Your task to perform on an android device: change notifications settings Image 0: 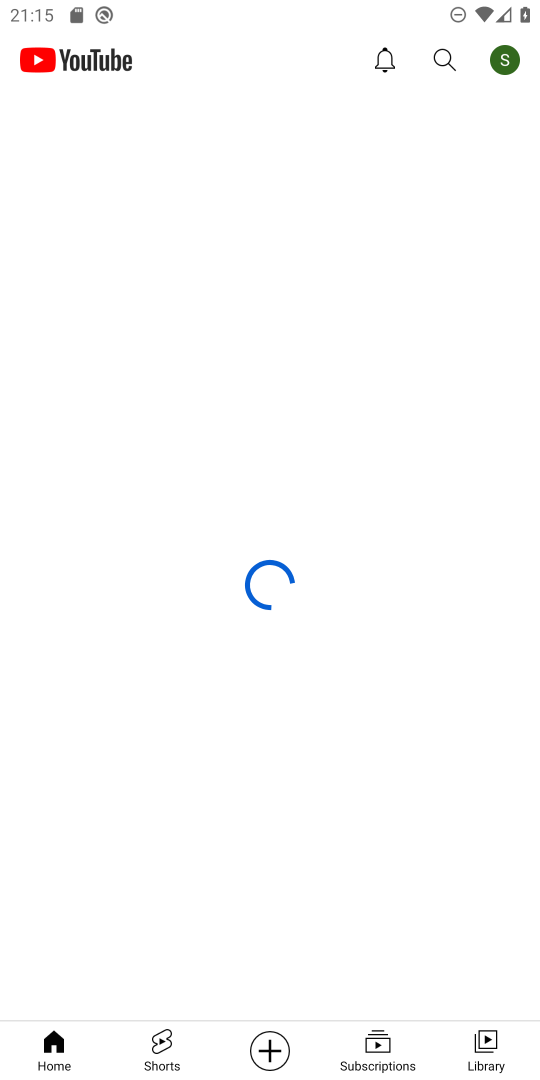
Step 0: press home button
Your task to perform on an android device: change notifications settings Image 1: 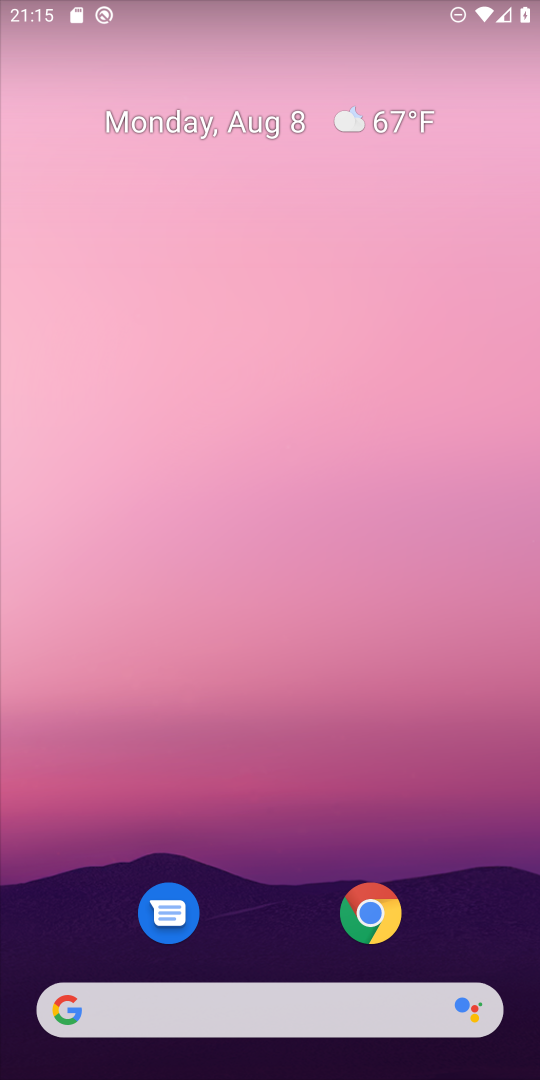
Step 1: drag from (271, 978) to (333, 199)
Your task to perform on an android device: change notifications settings Image 2: 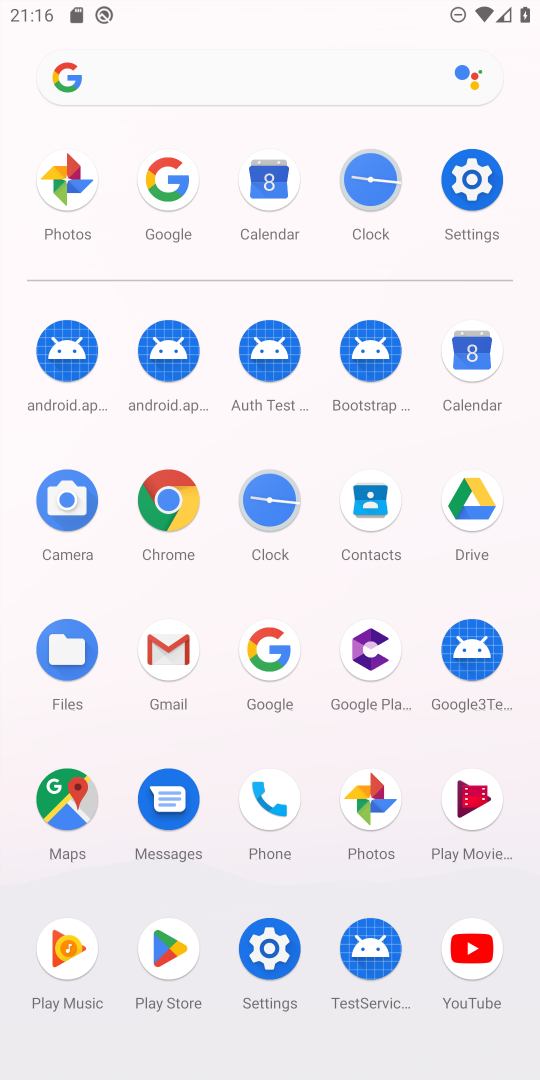
Step 2: click (473, 182)
Your task to perform on an android device: change notifications settings Image 3: 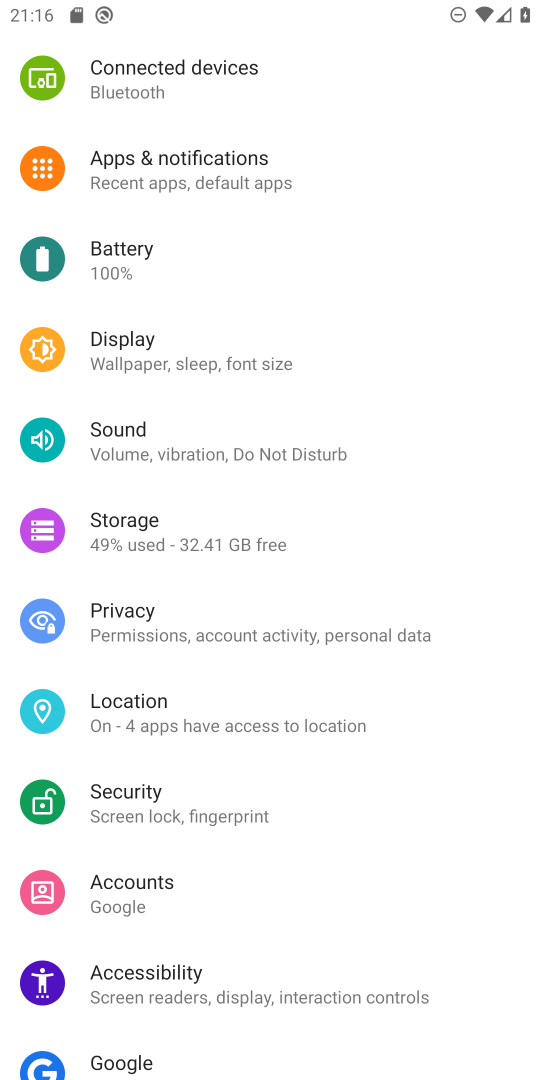
Step 3: click (199, 184)
Your task to perform on an android device: change notifications settings Image 4: 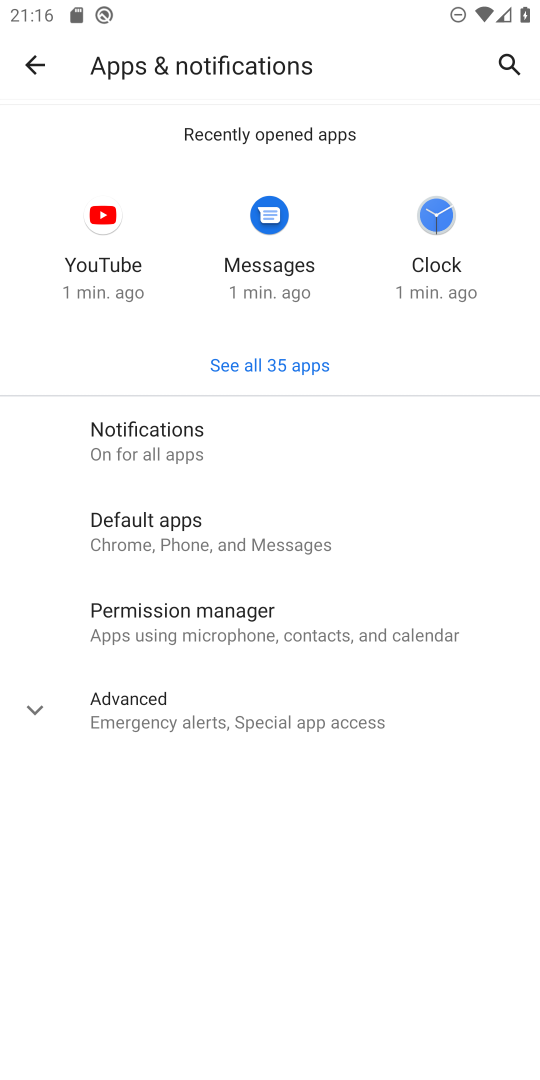
Step 4: click (193, 445)
Your task to perform on an android device: change notifications settings Image 5: 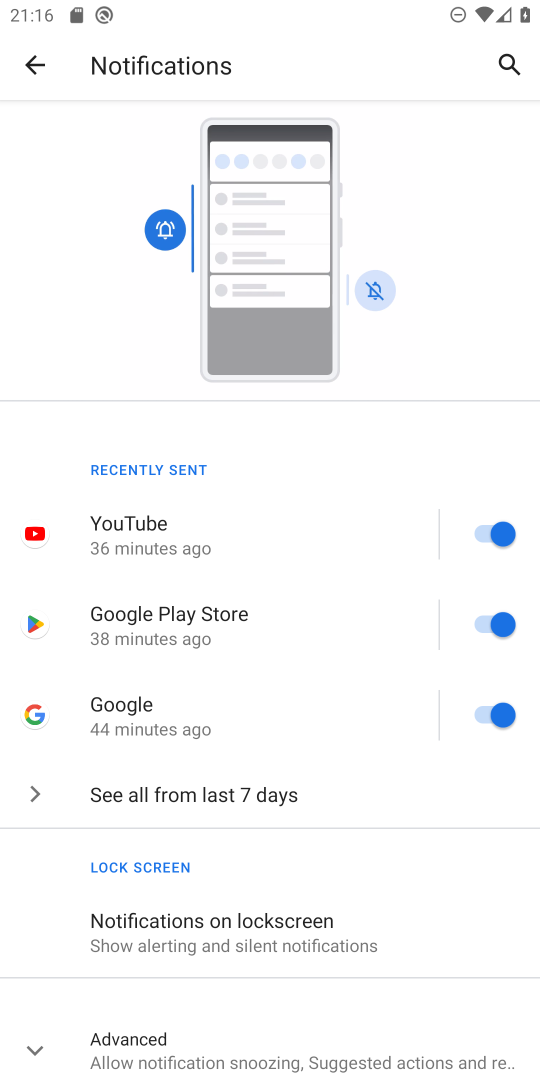
Step 5: click (143, 1041)
Your task to perform on an android device: change notifications settings Image 6: 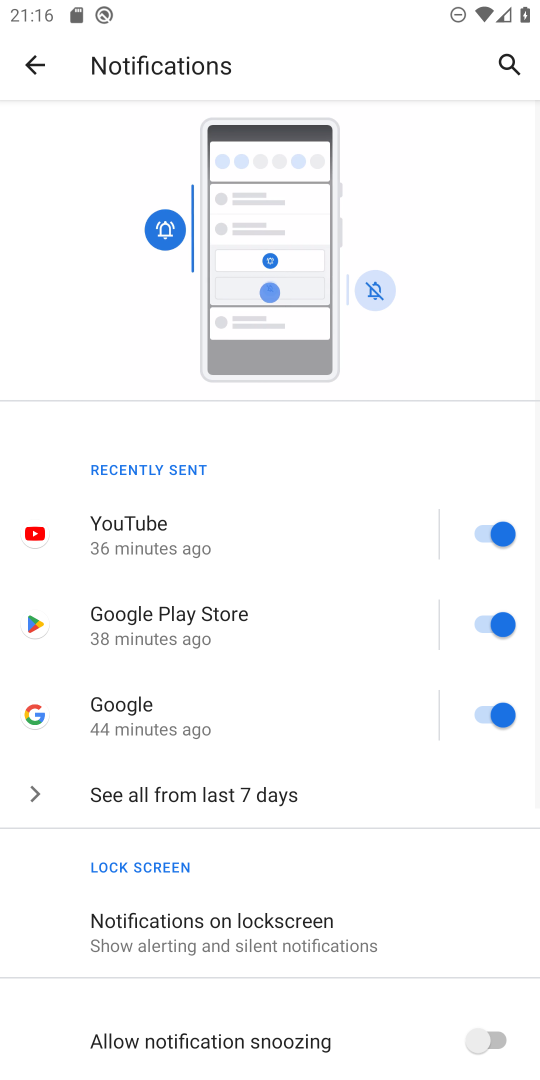
Step 6: drag from (173, 1008) to (136, 657)
Your task to perform on an android device: change notifications settings Image 7: 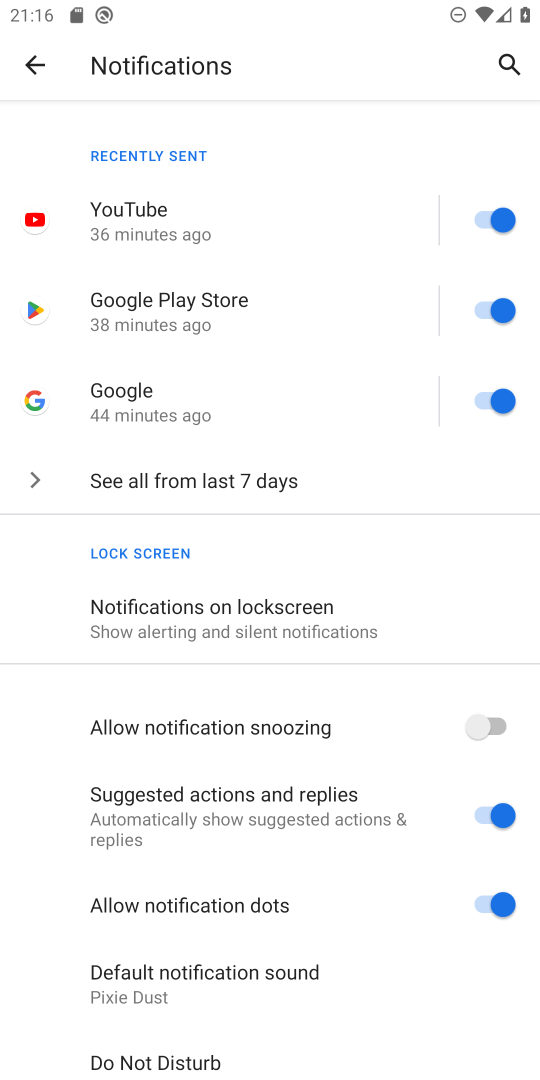
Step 7: click (479, 901)
Your task to perform on an android device: change notifications settings Image 8: 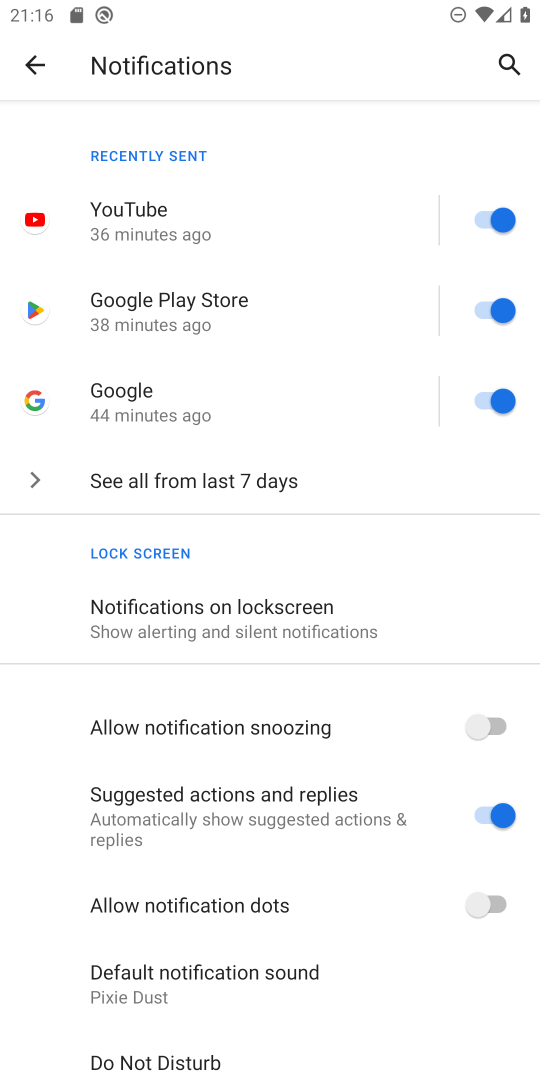
Step 8: task complete